Your task to perform on an android device: Clear all items from cart on costco.com. Add "rayovac triple a" to the cart on costco.com, then select checkout. Image 0: 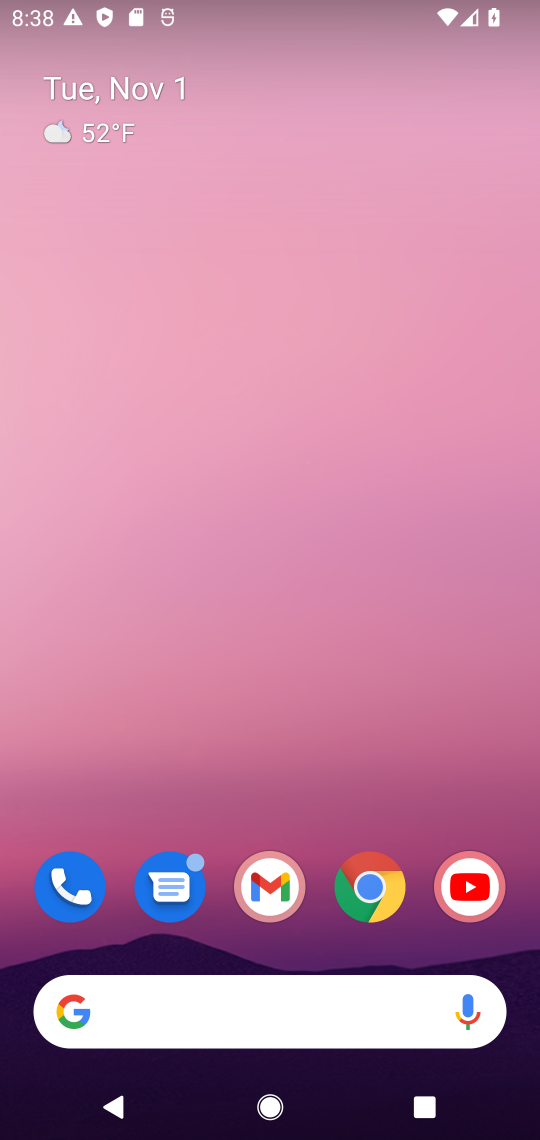
Step 0: drag from (264, 954) to (268, 278)
Your task to perform on an android device: Clear all items from cart on costco.com. Add "rayovac triple a" to the cart on costco.com, then select checkout. Image 1: 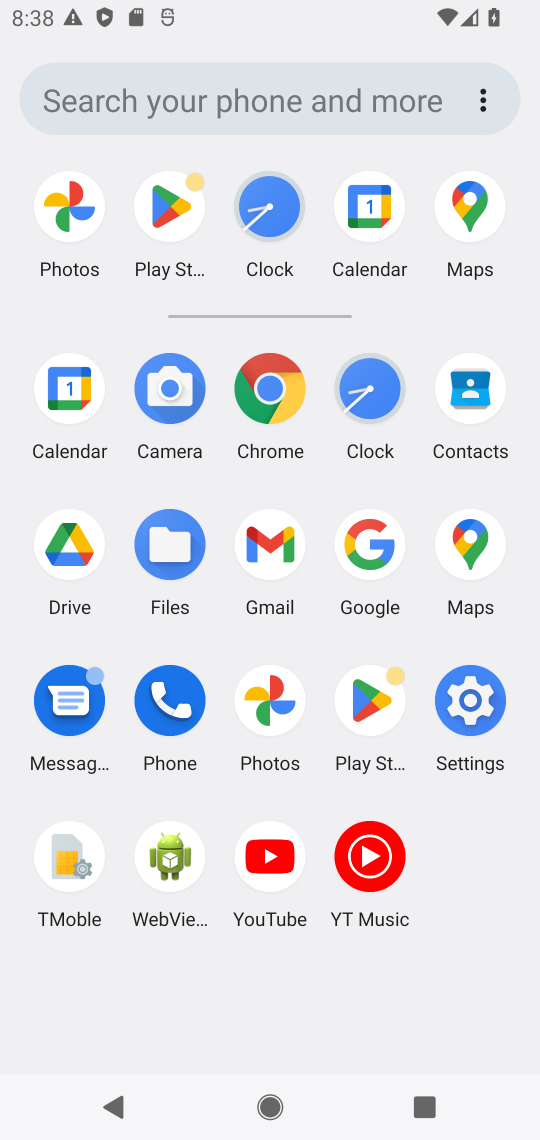
Step 1: click (362, 529)
Your task to perform on an android device: Clear all items from cart on costco.com. Add "rayovac triple a" to the cart on costco.com, then select checkout. Image 2: 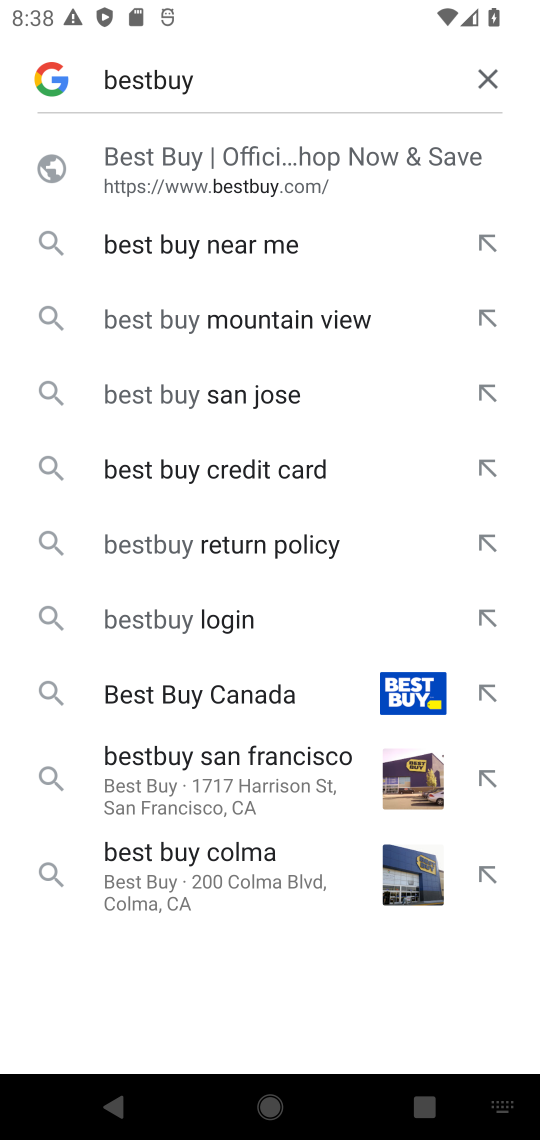
Step 2: click (482, 87)
Your task to perform on an android device: Clear all items from cart on costco.com. Add "rayovac triple a" to the cart on costco.com, then select checkout. Image 3: 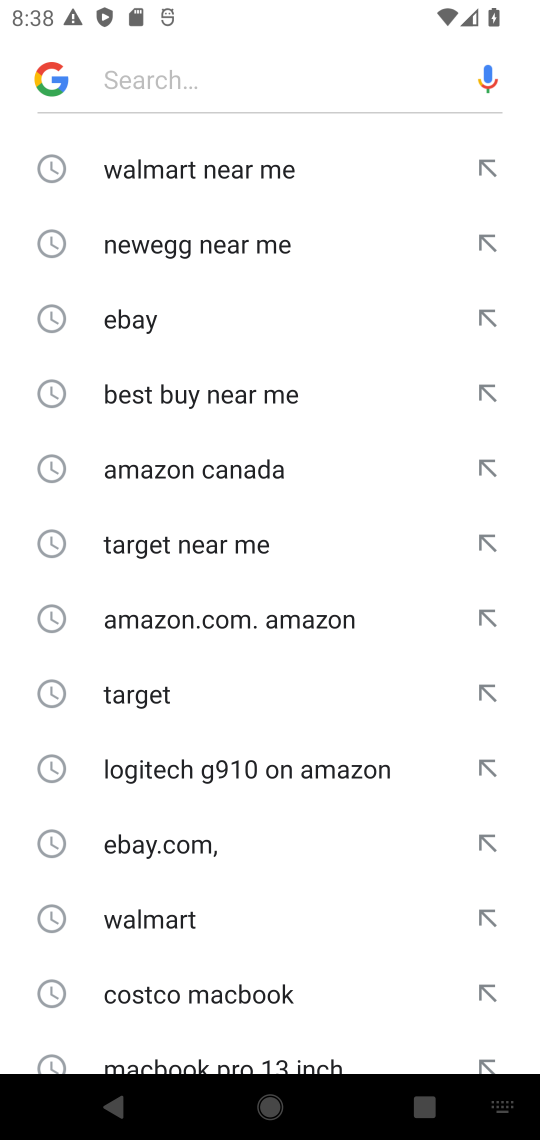
Step 3: click (239, 73)
Your task to perform on an android device: Clear all items from cart on costco.com. Add "rayovac triple a" to the cart on costco.com, then select checkout. Image 4: 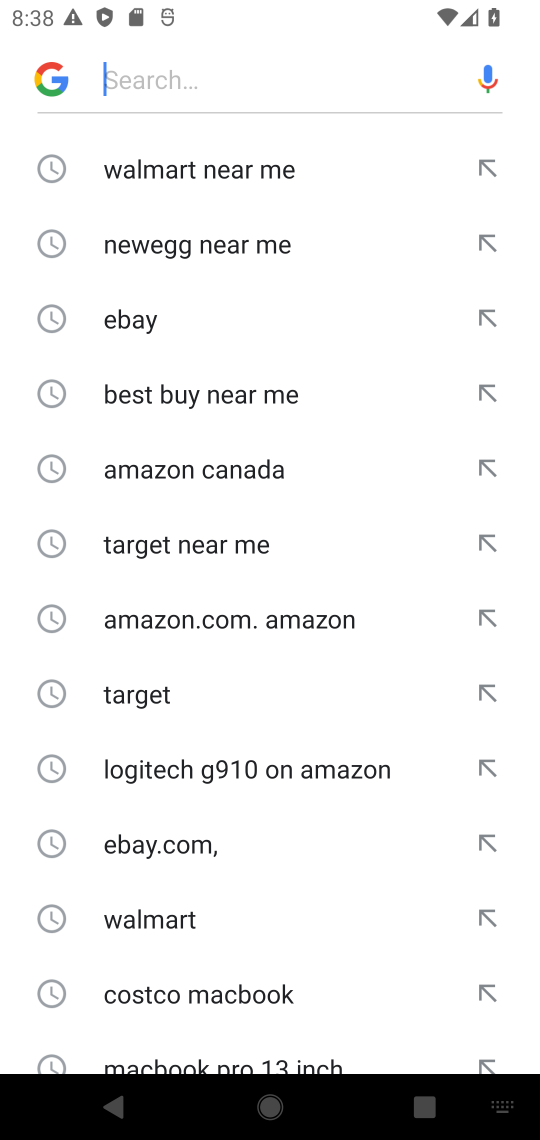
Step 4: type "costco "
Your task to perform on an android device: Clear all items from cart on costco.com. Add "rayovac triple a" to the cart on costco.com, then select checkout. Image 5: 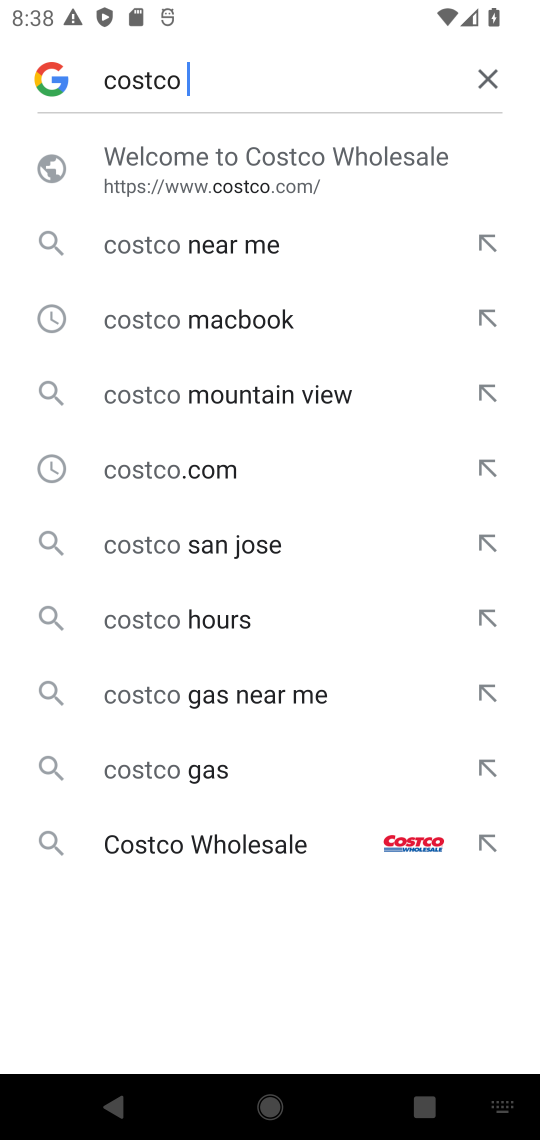
Step 5: click (183, 161)
Your task to perform on an android device: Clear all items from cart on costco.com. Add "rayovac triple a" to the cart on costco.com, then select checkout. Image 6: 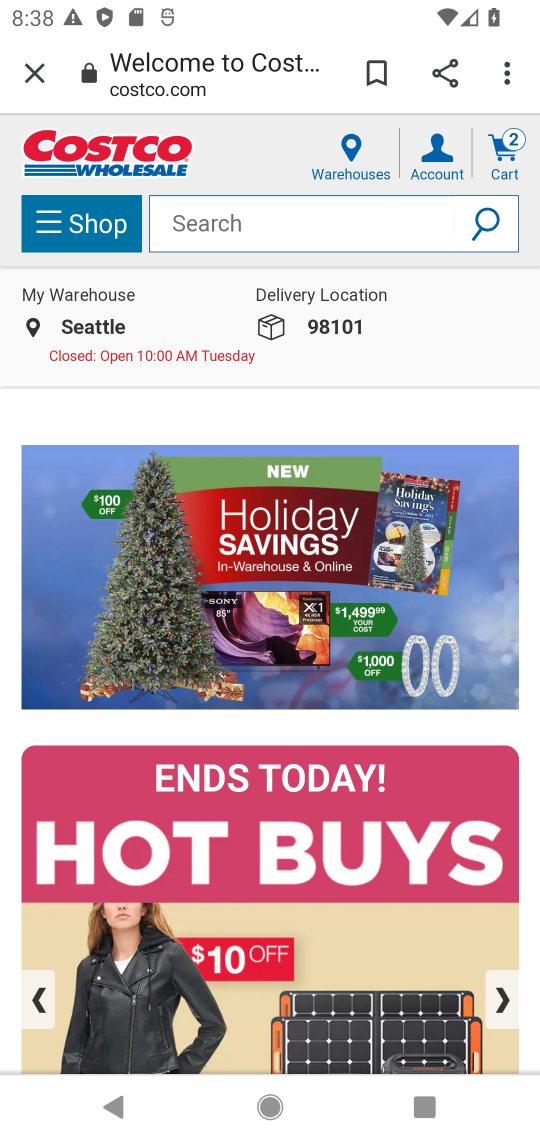
Step 6: click (281, 224)
Your task to perform on an android device: Clear all items from cart on costco.com. Add "rayovac triple a" to the cart on costco.com, then select checkout. Image 7: 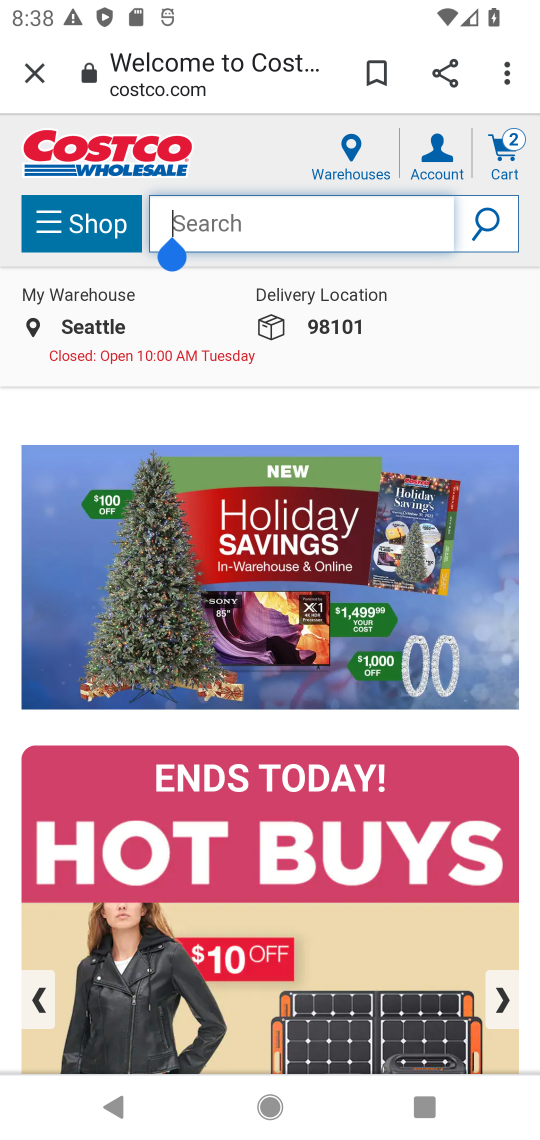
Step 7: click (326, 203)
Your task to perform on an android device: Clear all items from cart on costco.com. Add "rayovac triple a" to the cart on costco.com, then select checkout. Image 8: 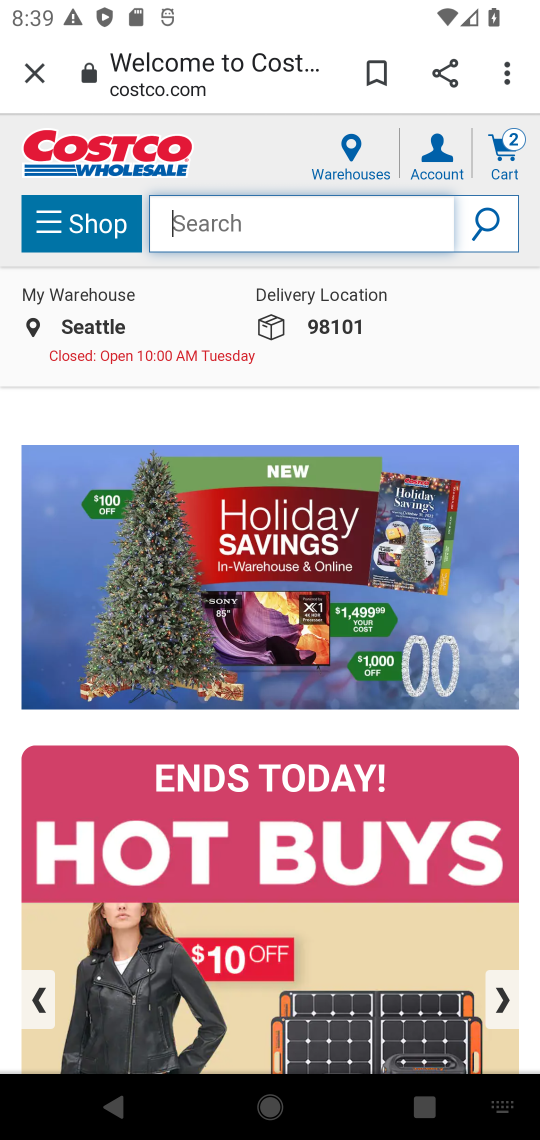
Step 8: type "rayovac triple  "
Your task to perform on an android device: Clear all items from cart on costco.com. Add "rayovac triple a" to the cart on costco.com, then select checkout. Image 9: 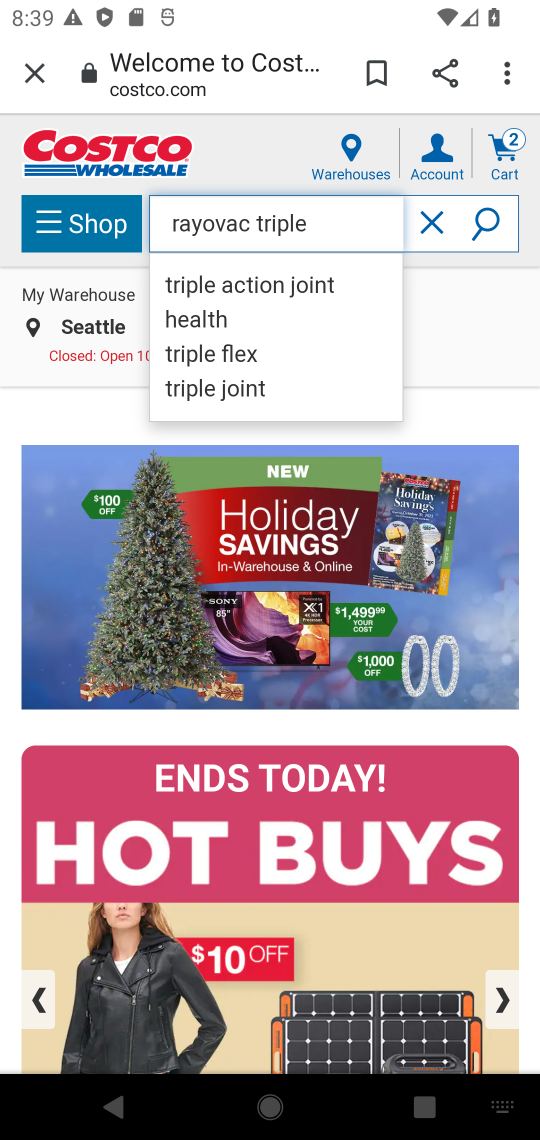
Step 9: click (491, 226)
Your task to perform on an android device: Clear all items from cart on costco.com. Add "rayovac triple a" to the cart on costco.com, then select checkout. Image 10: 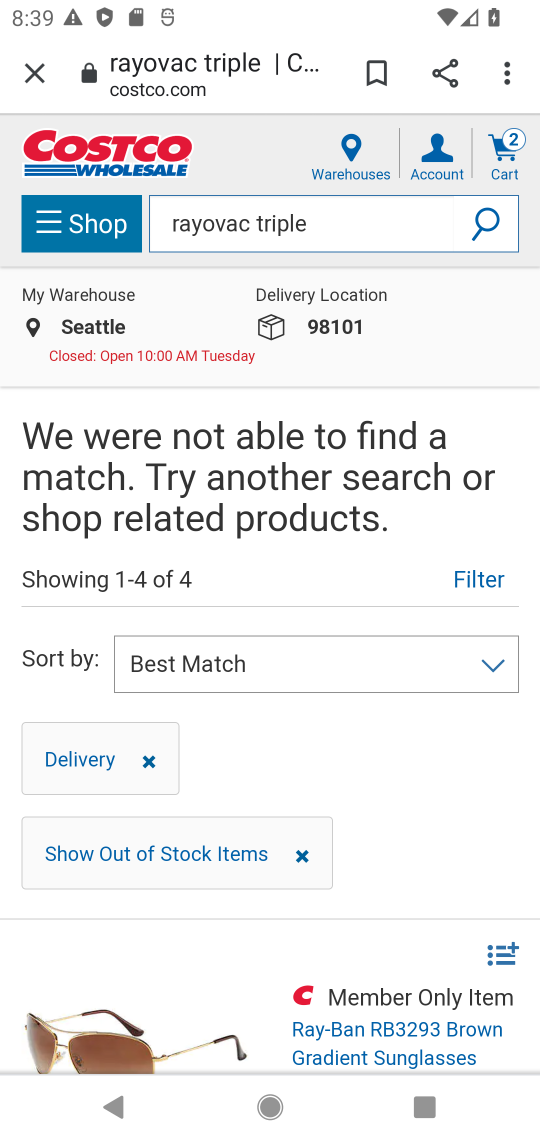
Step 10: task complete